Your task to perform on an android device: Go to calendar. Show me events next week Image 0: 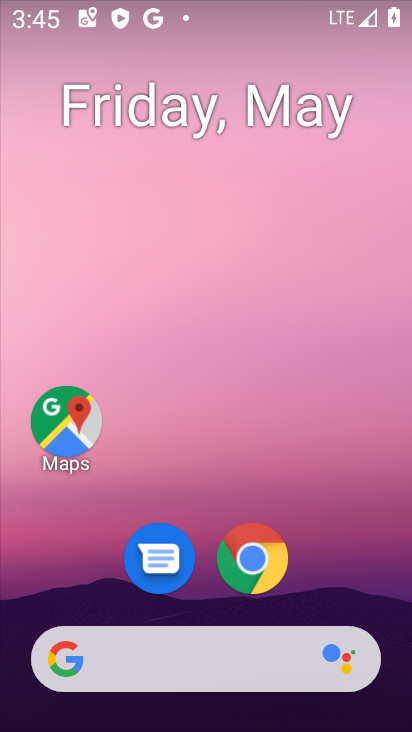
Step 0: press home button
Your task to perform on an android device: Go to calendar. Show me events next week Image 1: 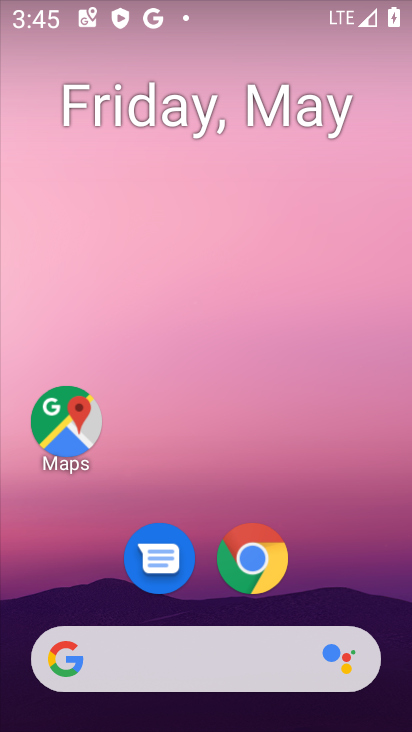
Step 1: drag from (159, 662) to (232, 241)
Your task to perform on an android device: Go to calendar. Show me events next week Image 2: 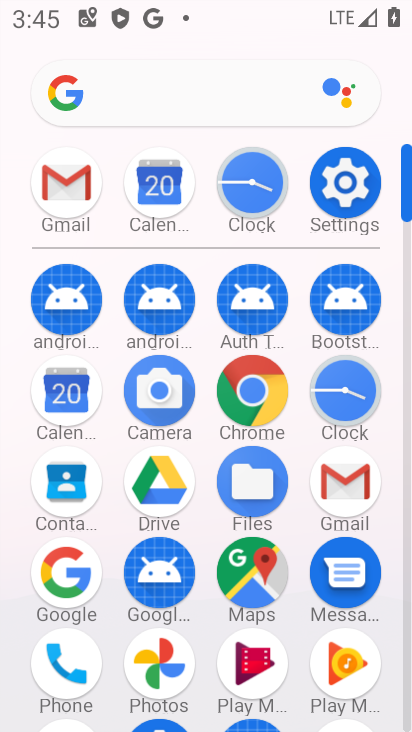
Step 2: click (73, 395)
Your task to perform on an android device: Go to calendar. Show me events next week Image 3: 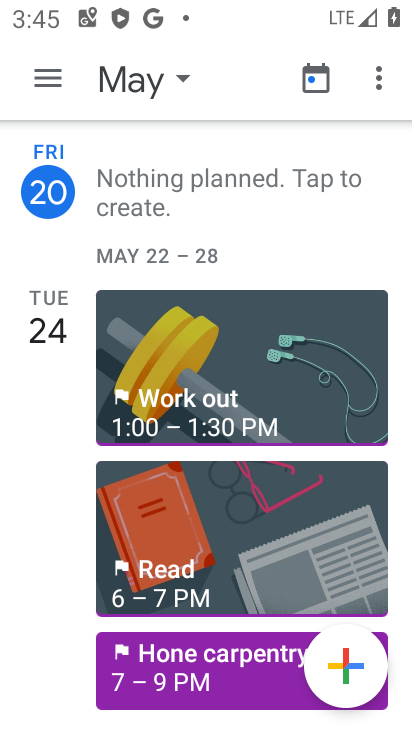
Step 3: click (132, 85)
Your task to perform on an android device: Go to calendar. Show me events next week Image 4: 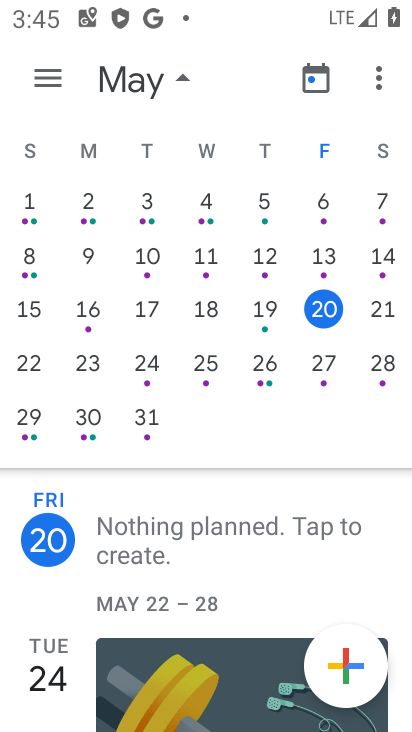
Step 4: drag from (367, 265) to (0, 338)
Your task to perform on an android device: Go to calendar. Show me events next week Image 5: 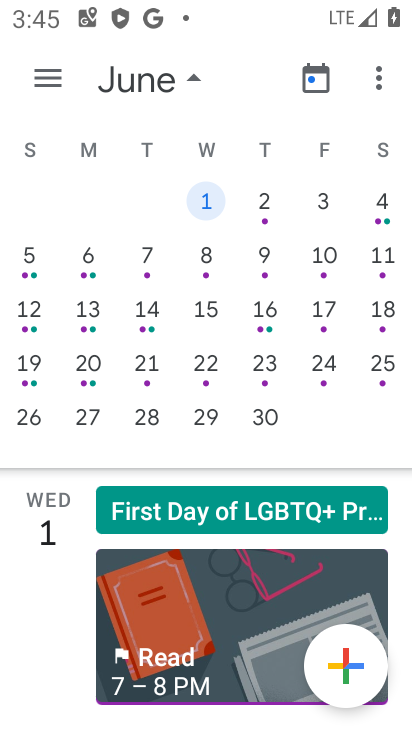
Step 5: click (212, 204)
Your task to perform on an android device: Go to calendar. Show me events next week Image 6: 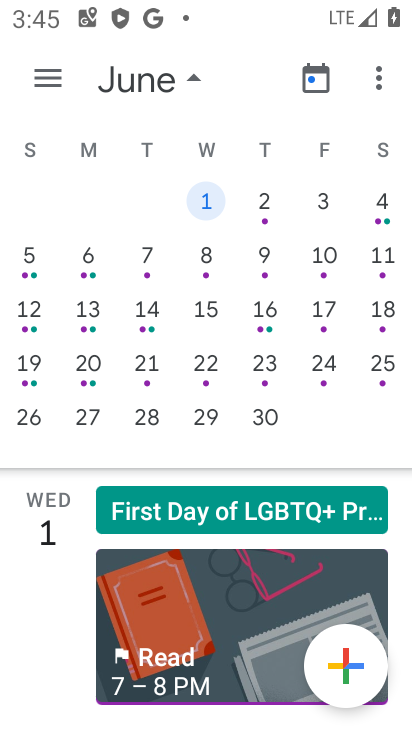
Step 6: click (44, 76)
Your task to perform on an android device: Go to calendar. Show me events next week Image 7: 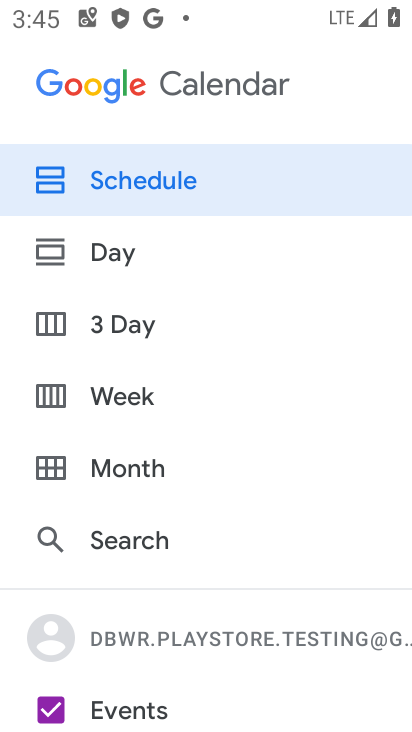
Step 7: click (113, 394)
Your task to perform on an android device: Go to calendar. Show me events next week Image 8: 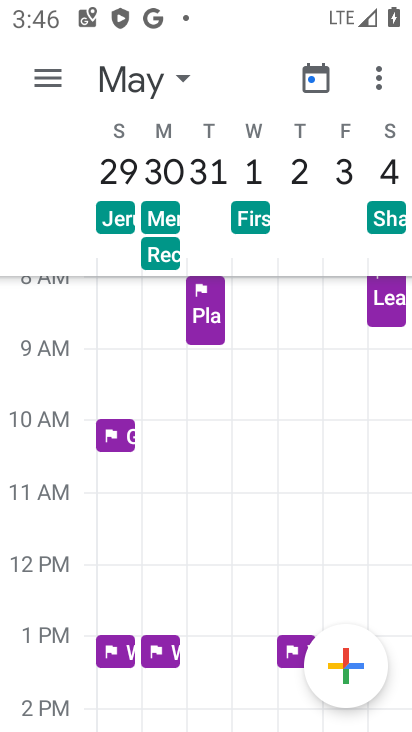
Step 8: click (57, 81)
Your task to perform on an android device: Go to calendar. Show me events next week Image 9: 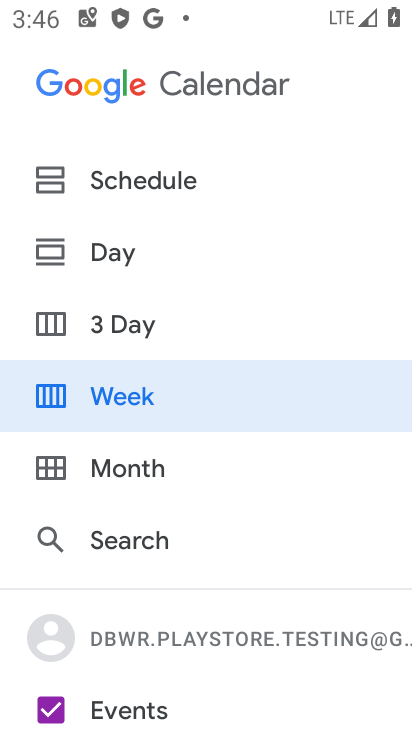
Step 9: click (166, 184)
Your task to perform on an android device: Go to calendar. Show me events next week Image 10: 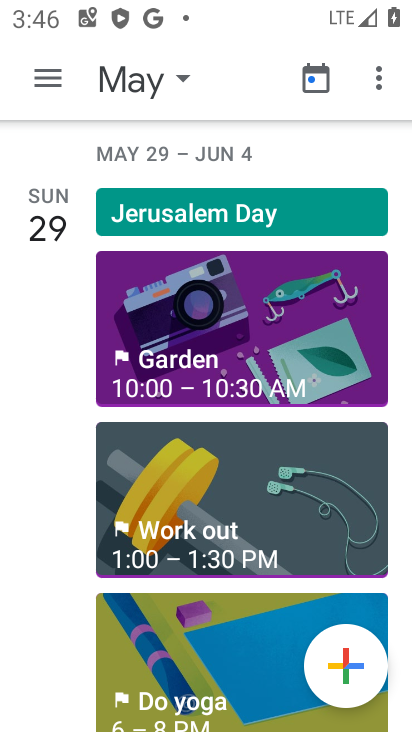
Step 10: click (226, 342)
Your task to perform on an android device: Go to calendar. Show me events next week Image 11: 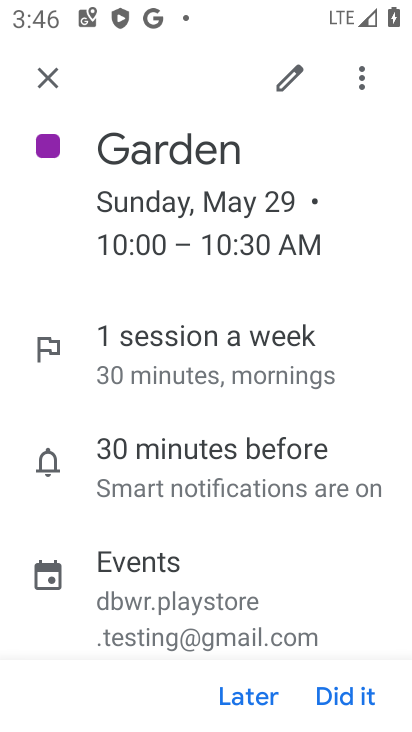
Step 11: click (49, 72)
Your task to perform on an android device: Go to calendar. Show me events next week Image 12: 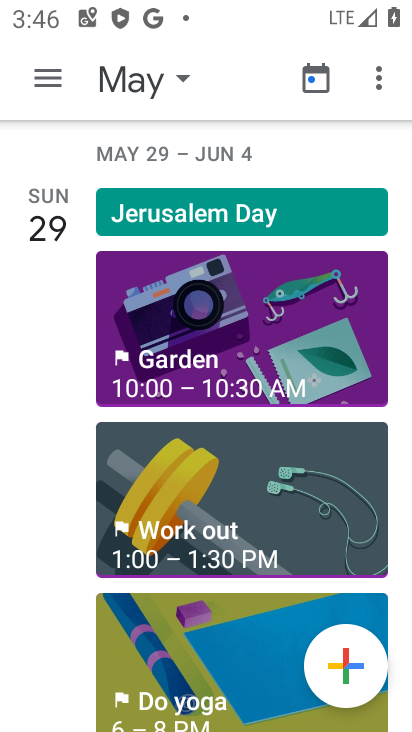
Step 12: task complete